Your task to perform on an android device: open sync settings in chrome Image 0: 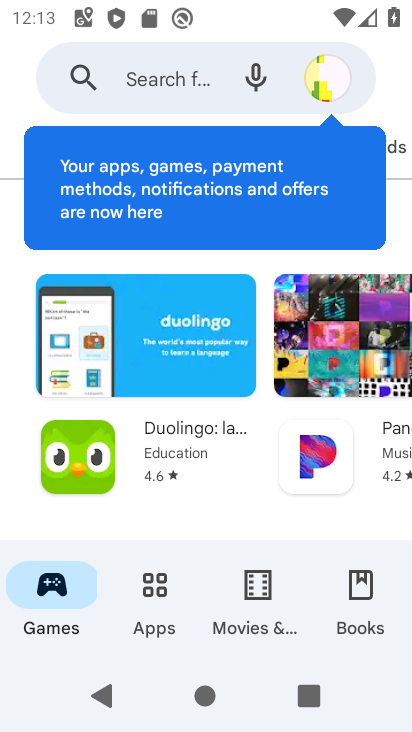
Step 0: press back button
Your task to perform on an android device: open sync settings in chrome Image 1: 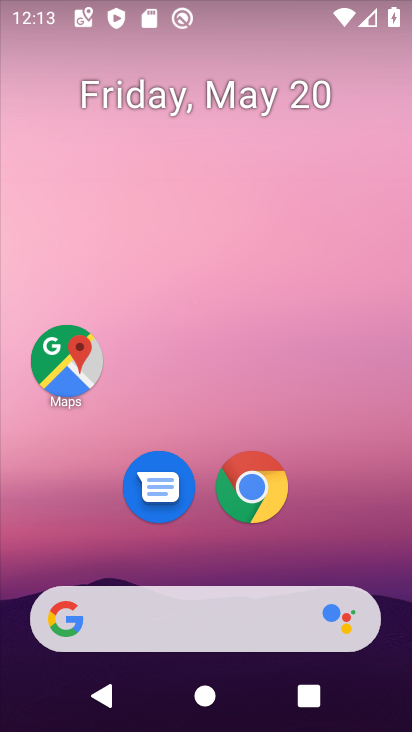
Step 1: click (262, 485)
Your task to perform on an android device: open sync settings in chrome Image 2: 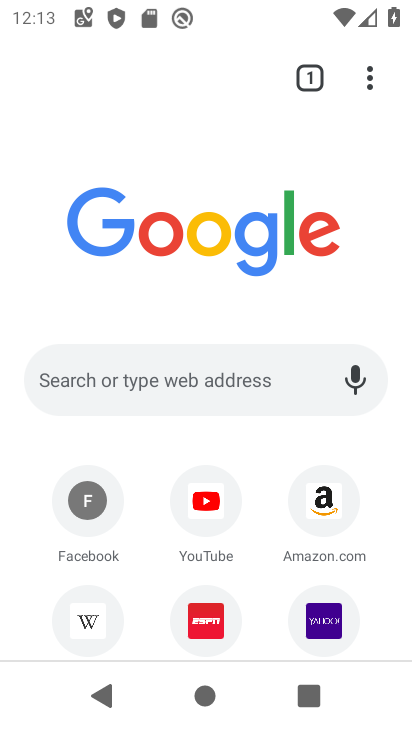
Step 2: drag from (370, 76) to (110, 550)
Your task to perform on an android device: open sync settings in chrome Image 3: 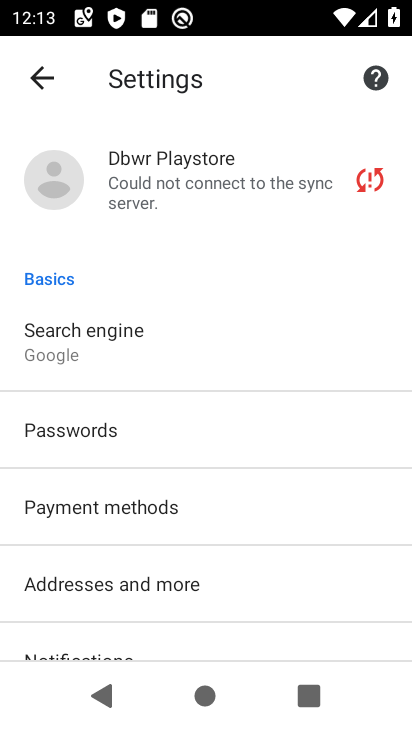
Step 3: click (166, 184)
Your task to perform on an android device: open sync settings in chrome Image 4: 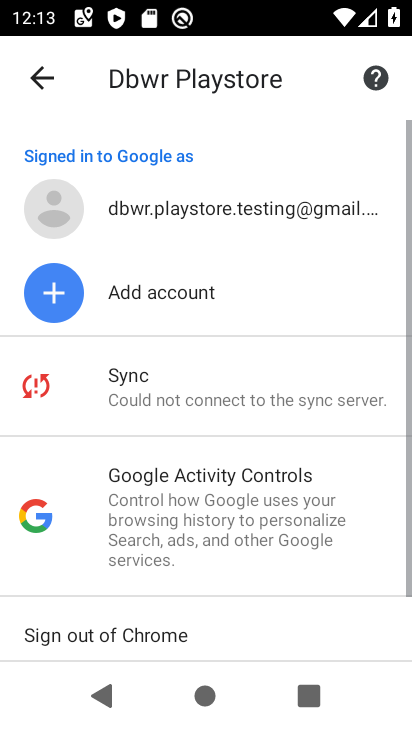
Step 4: task complete